Your task to perform on an android device: change the clock display to analog Image 0: 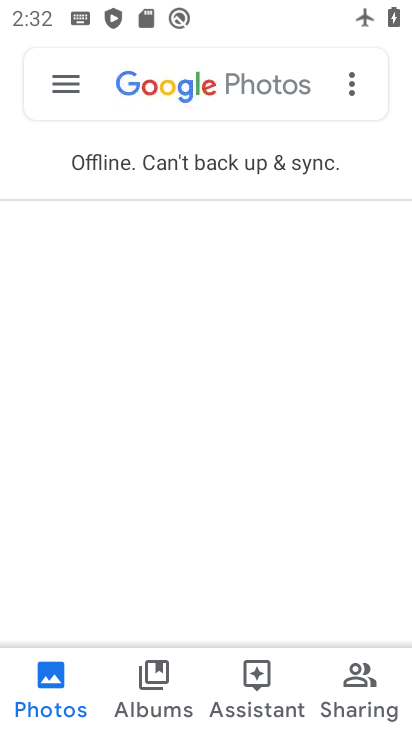
Step 0: press home button
Your task to perform on an android device: change the clock display to analog Image 1: 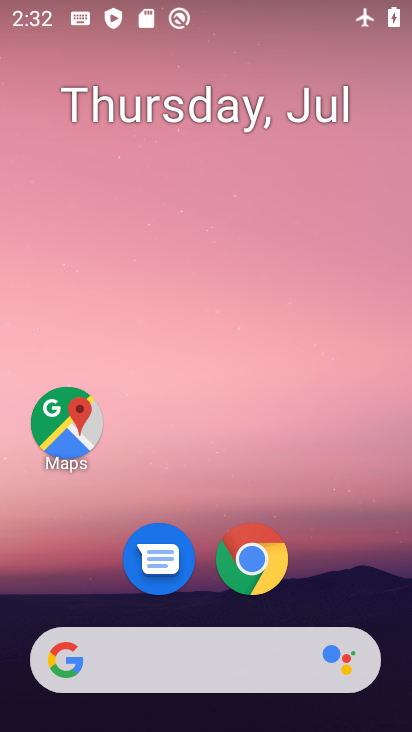
Step 1: drag from (152, 641) to (254, 309)
Your task to perform on an android device: change the clock display to analog Image 2: 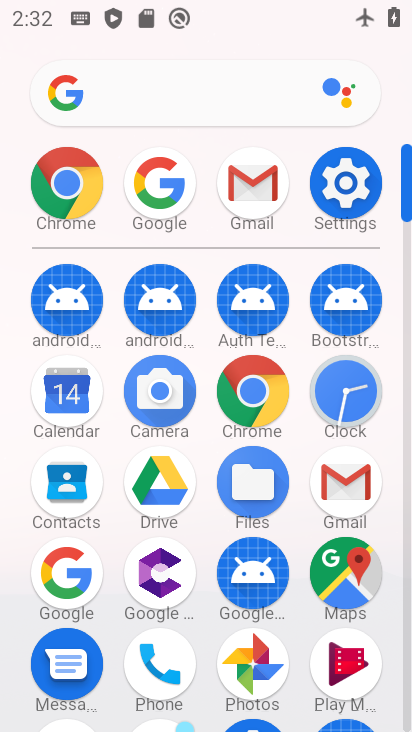
Step 2: click (353, 408)
Your task to perform on an android device: change the clock display to analog Image 3: 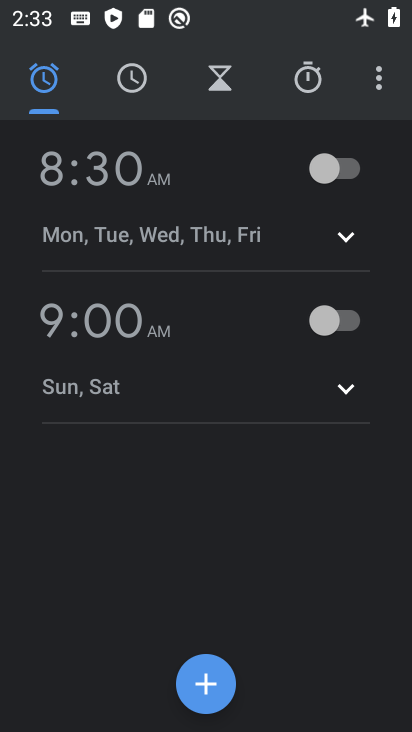
Step 3: click (371, 90)
Your task to perform on an android device: change the clock display to analog Image 4: 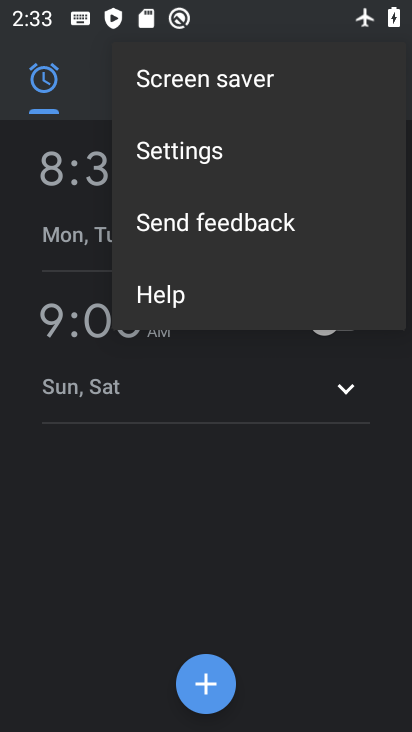
Step 4: click (196, 151)
Your task to perform on an android device: change the clock display to analog Image 5: 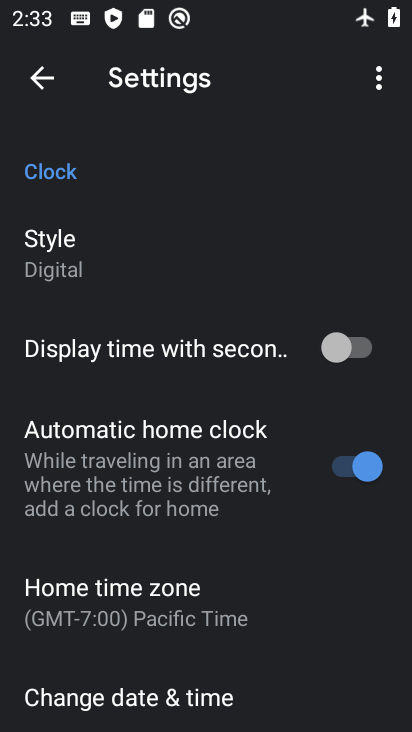
Step 5: click (107, 264)
Your task to perform on an android device: change the clock display to analog Image 6: 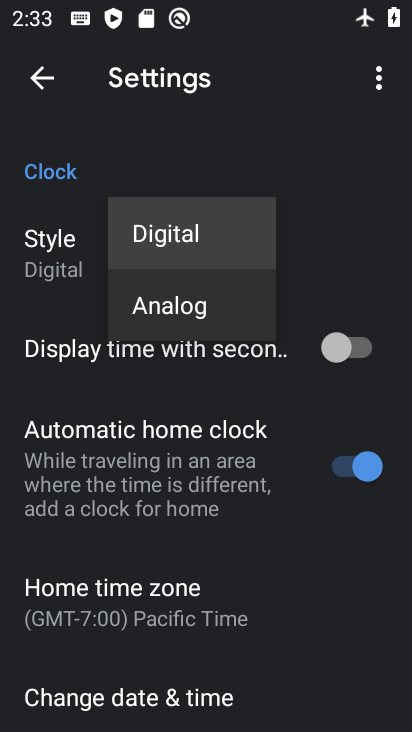
Step 6: click (145, 309)
Your task to perform on an android device: change the clock display to analog Image 7: 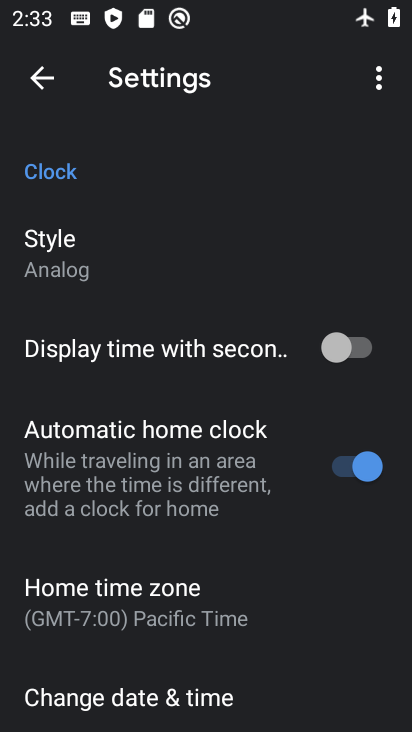
Step 7: task complete